Your task to perform on an android device: Go to display settings Image 0: 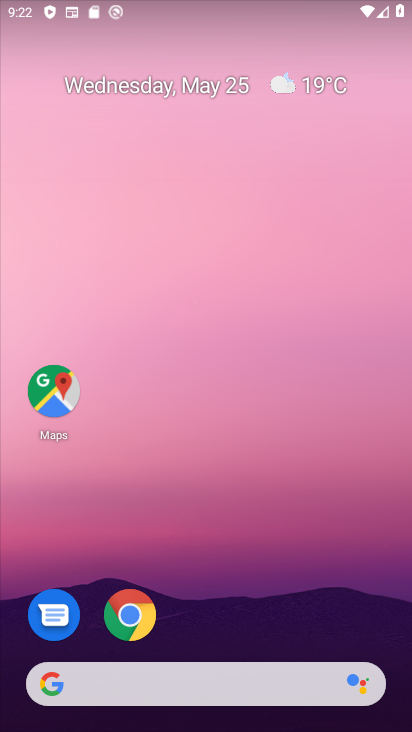
Step 0: drag from (257, 699) to (154, 130)
Your task to perform on an android device: Go to display settings Image 1: 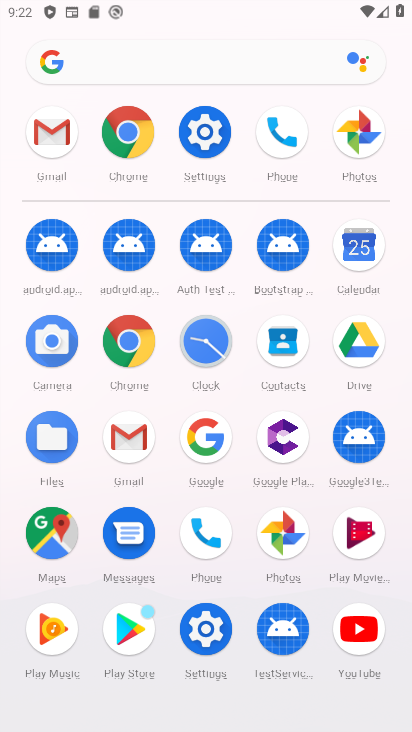
Step 1: click (194, 143)
Your task to perform on an android device: Go to display settings Image 2: 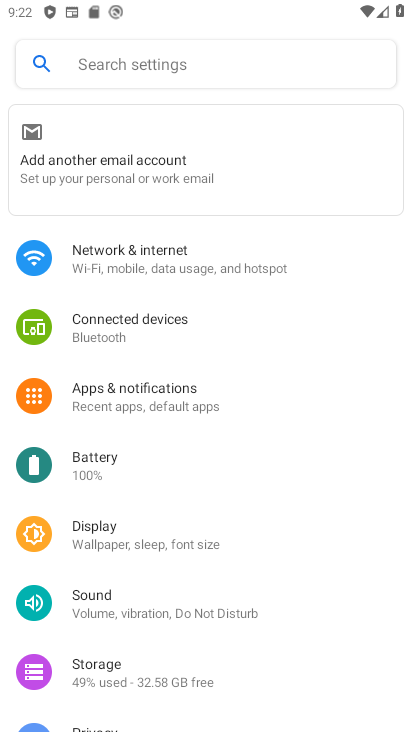
Step 2: click (94, 533)
Your task to perform on an android device: Go to display settings Image 3: 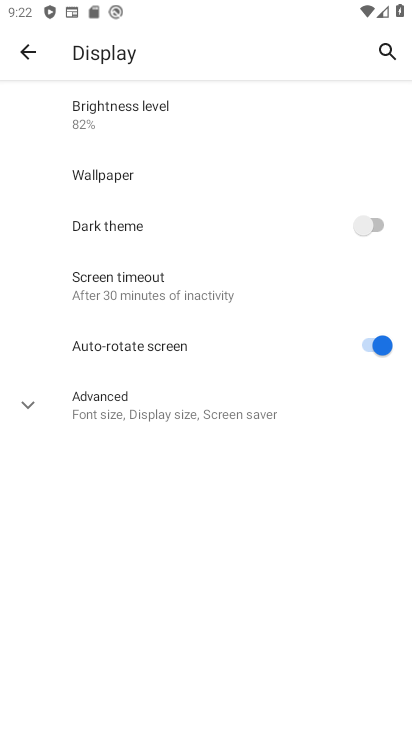
Step 3: task complete